Your task to perform on an android device: What's on my calendar today? Image 0: 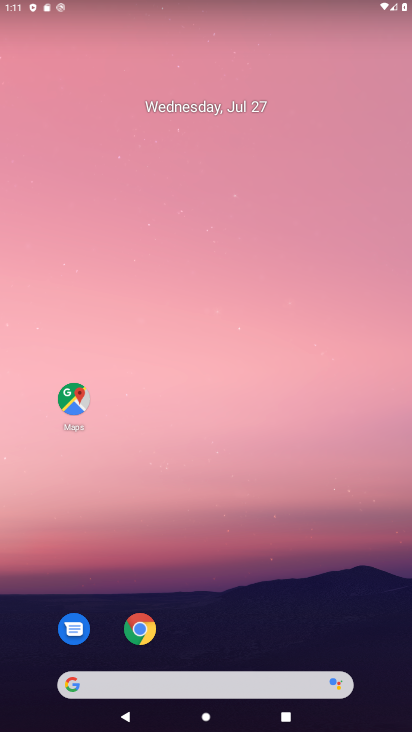
Step 0: press home button
Your task to perform on an android device: What's on my calendar today? Image 1: 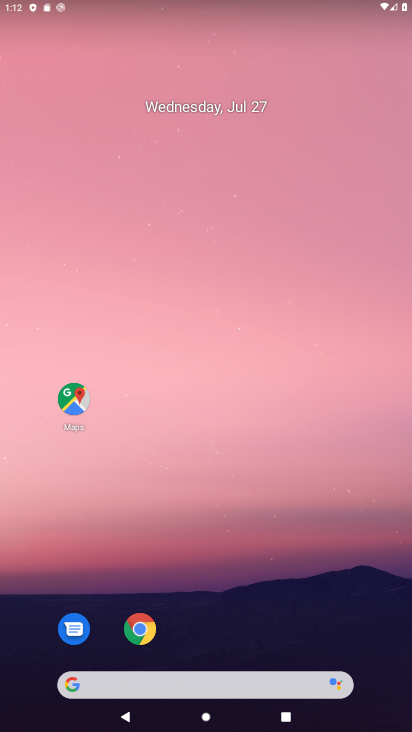
Step 1: drag from (245, 638) to (294, 9)
Your task to perform on an android device: What's on my calendar today? Image 2: 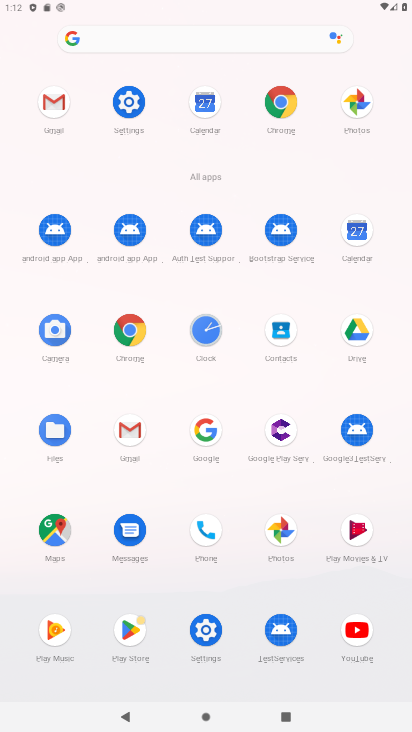
Step 2: click (368, 227)
Your task to perform on an android device: What's on my calendar today? Image 3: 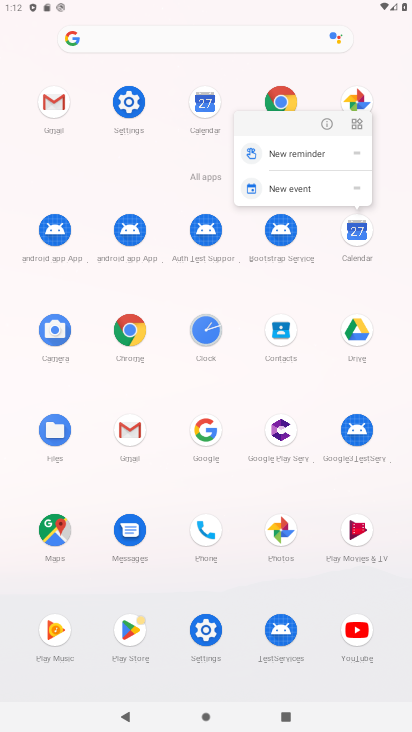
Step 3: click (357, 233)
Your task to perform on an android device: What's on my calendar today? Image 4: 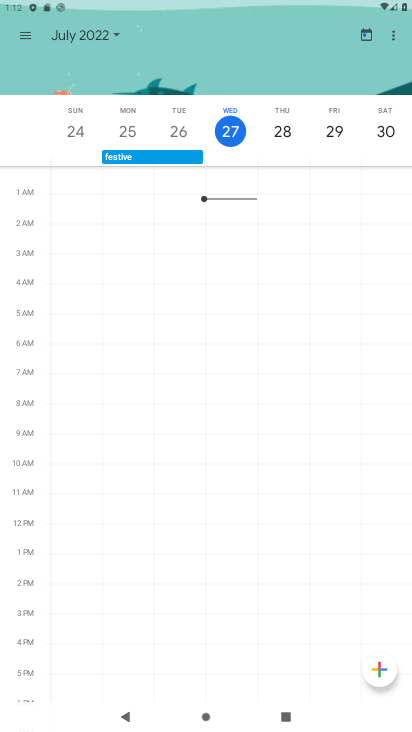
Step 4: click (102, 37)
Your task to perform on an android device: What's on my calendar today? Image 5: 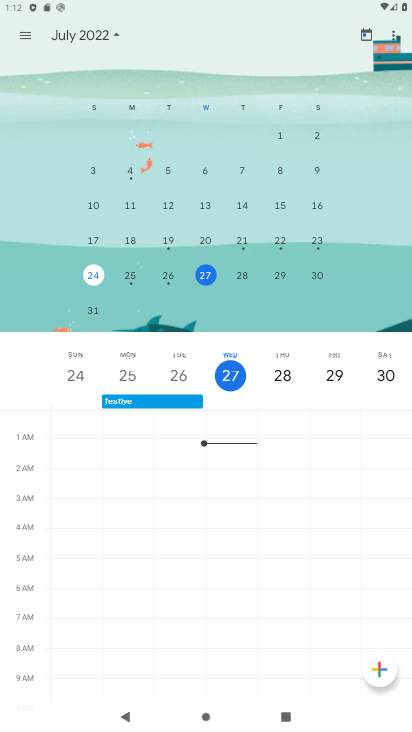
Step 5: click (239, 376)
Your task to perform on an android device: What's on my calendar today? Image 6: 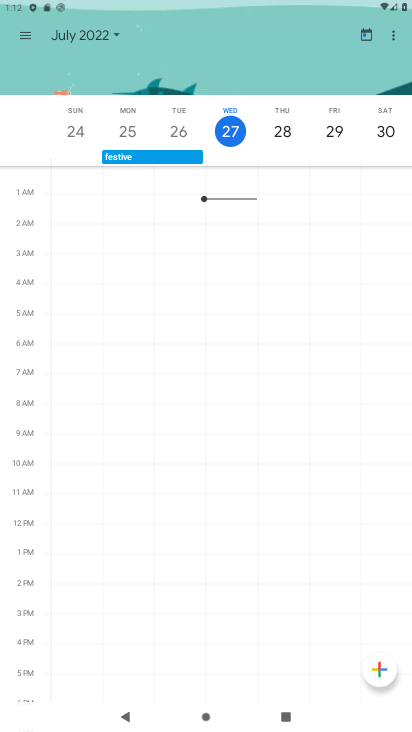
Step 6: task complete